Your task to perform on an android device: Do I have any events today? Image 0: 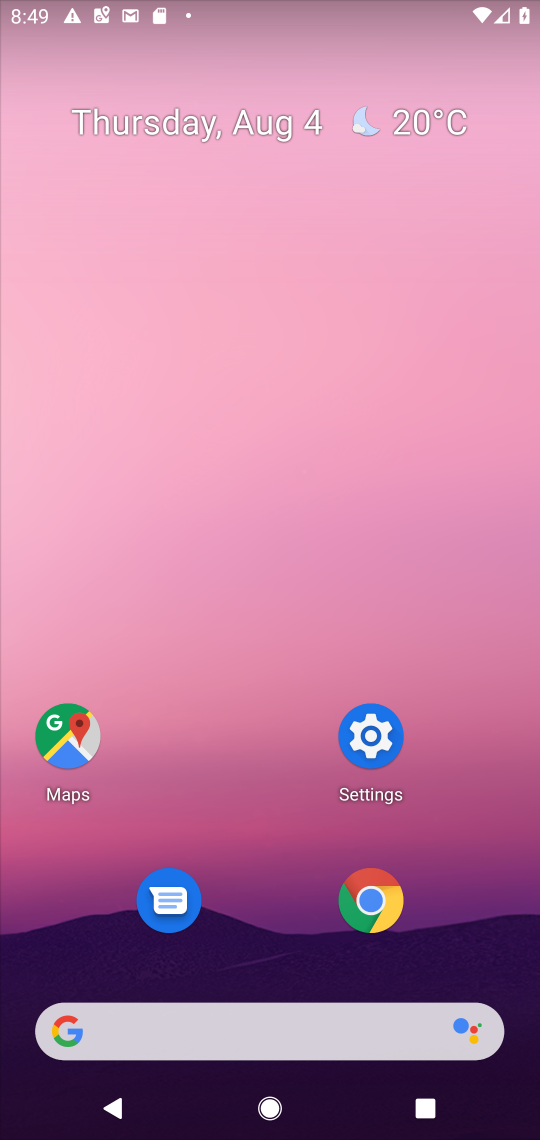
Step 0: drag from (165, 1029) to (382, 177)
Your task to perform on an android device: Do I have any events today? Image 1: 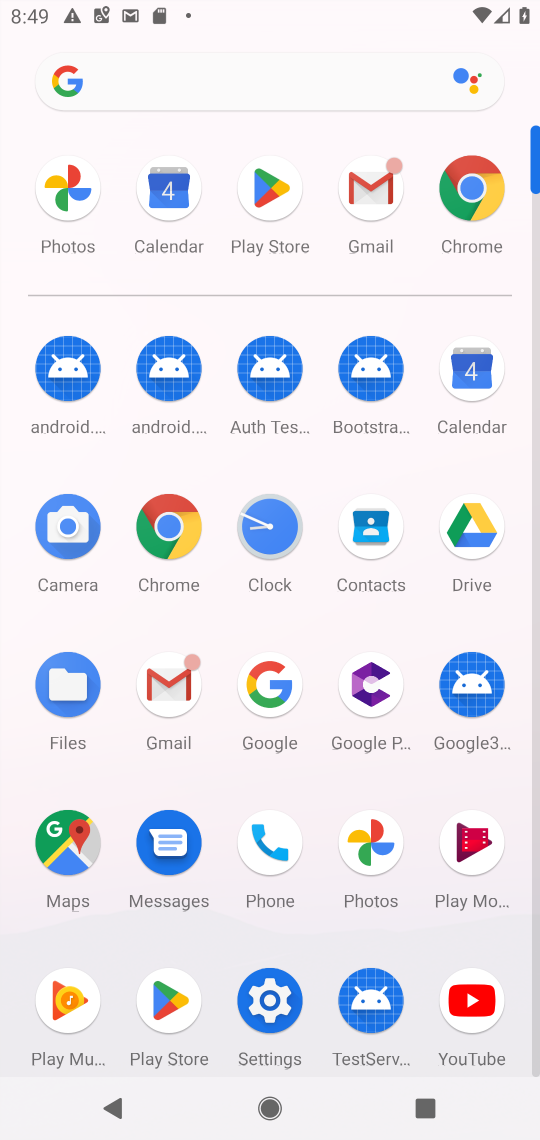
Step 1: click (481, 379)
Your task to perform on an android device: Do I have any events today? Image 2: 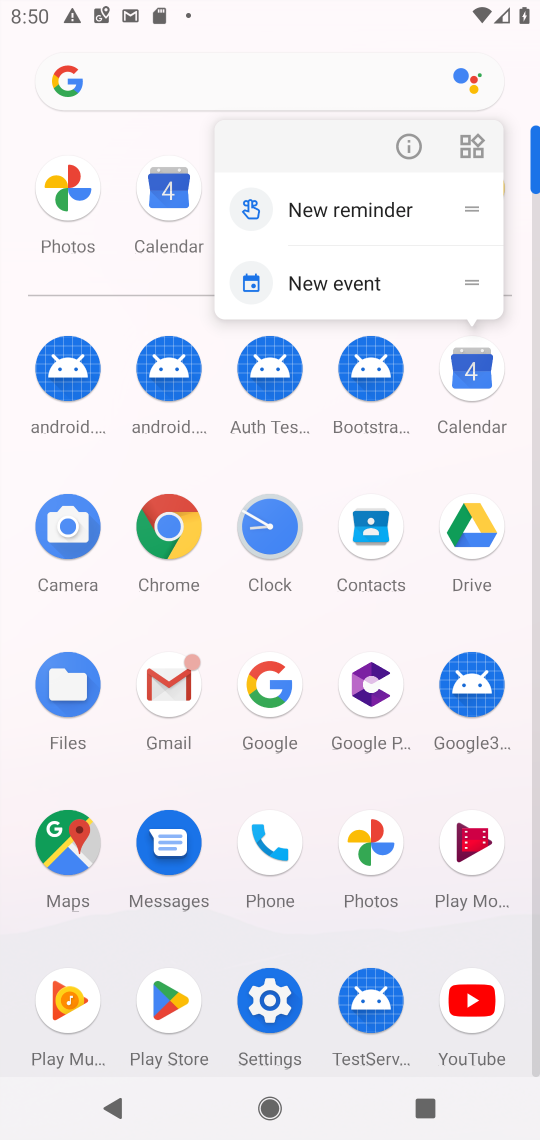
Step 2: click (481, 377)
Your task to perform on an android device: Do I have any events today? Image 3: 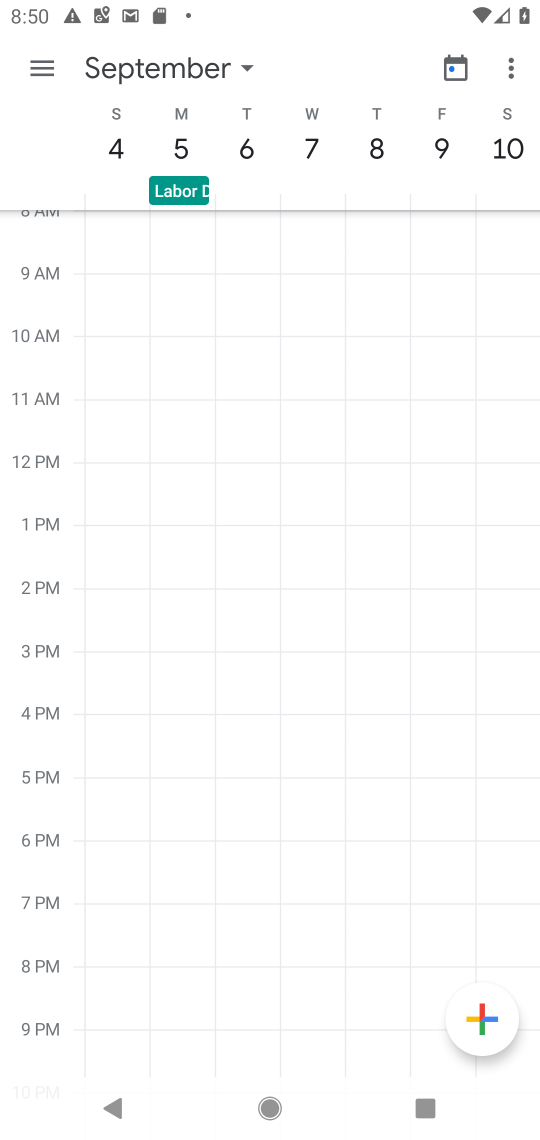
Step 3: click (171, 60)
Your task to perform on an android device: Do I have any events today? Image 4: 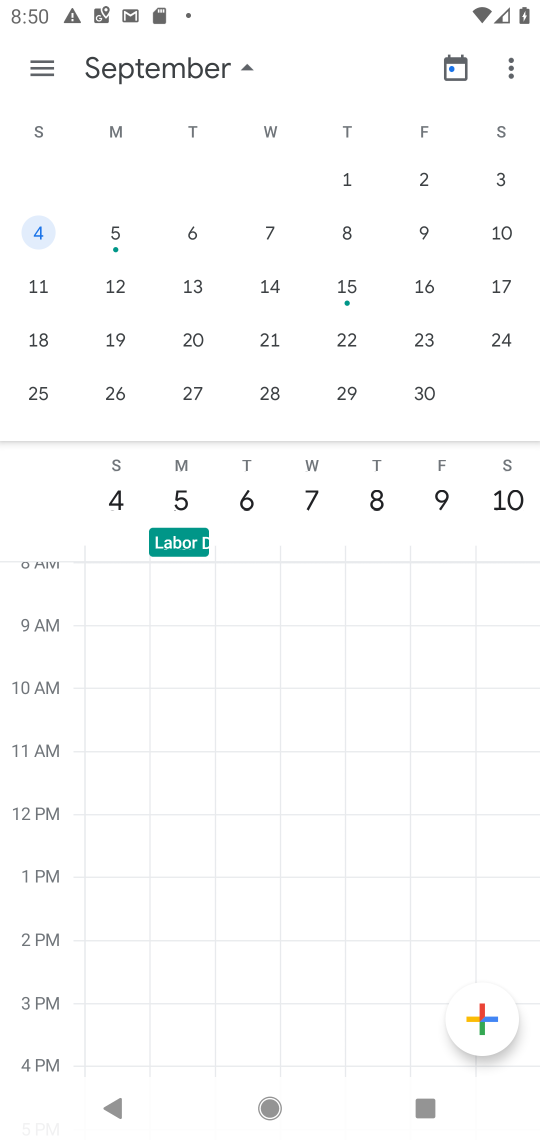
Step 4: drag from (102, 333) to (536, 338)
Your task to perform on an android device: Do I have any events today? Image 5: 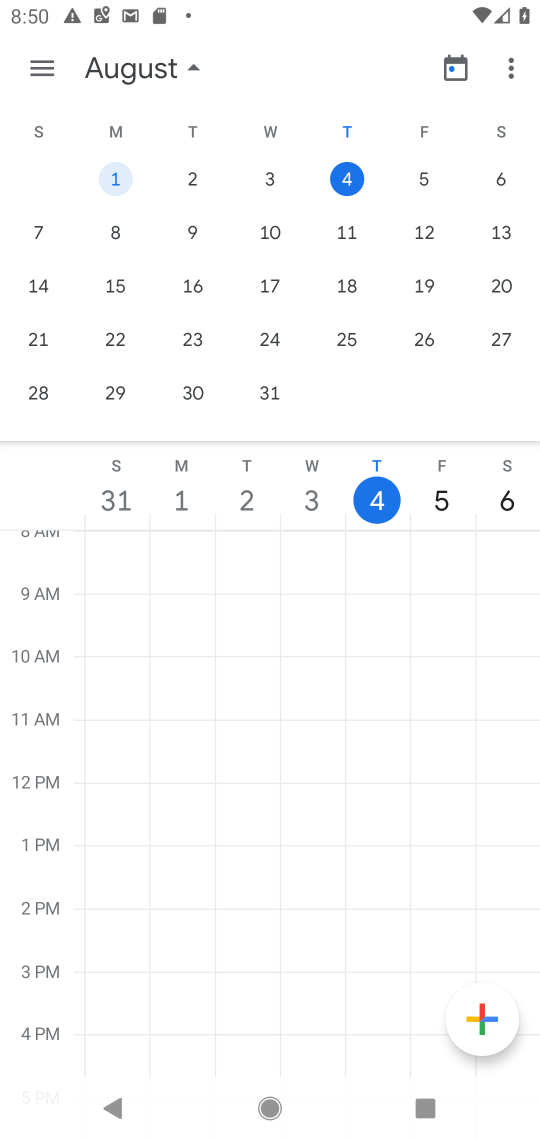
Step 5: click (426, 175)
Your task to perform on an android device: Do I have any events today? Image 6: 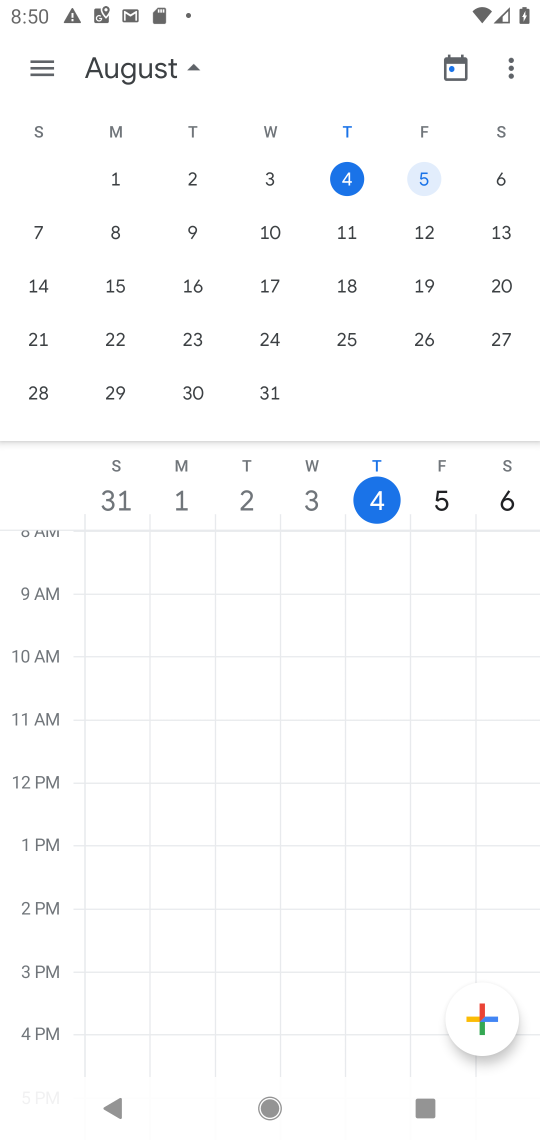
Step 6: click (344, 180)
Your task to perform on an android device: Do I have any events today? Image 7: 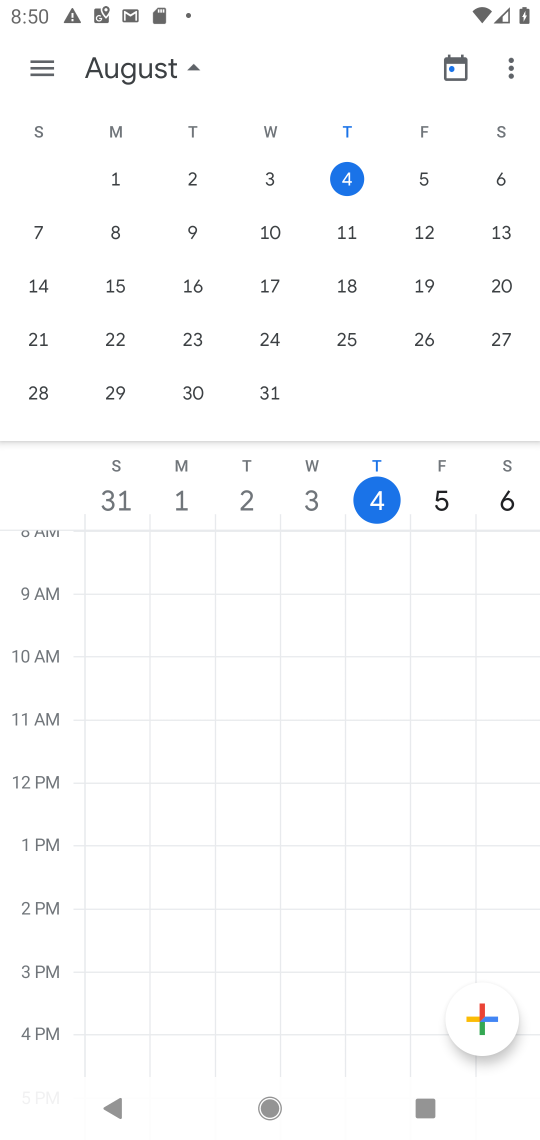
Step 7: click (41, 63)
Your task to perform on an android device: Do I have any events today? Image 8: 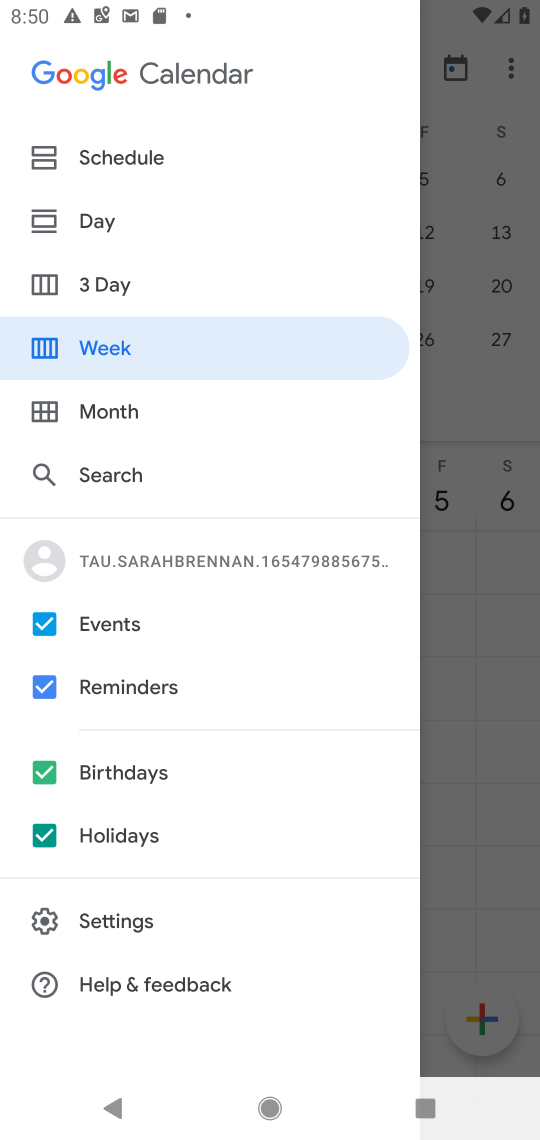
Step 8: click (95, 219)
Your task to perform on an android device: Do I have any events today? Image 9: 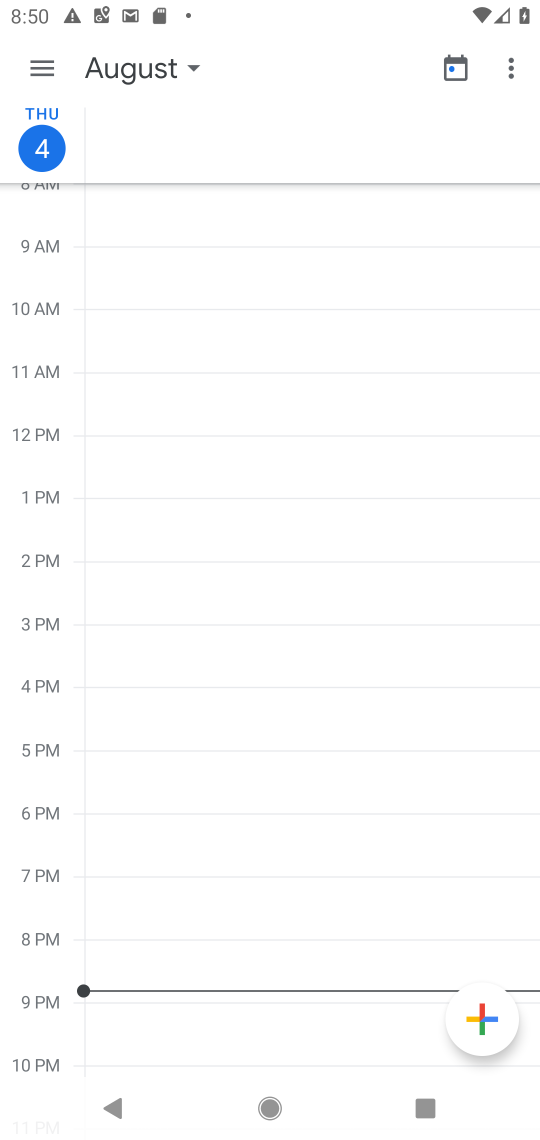
Step 9: click (39, 68)
Your task to perform on an android device: Do I have any events today? Image 10: 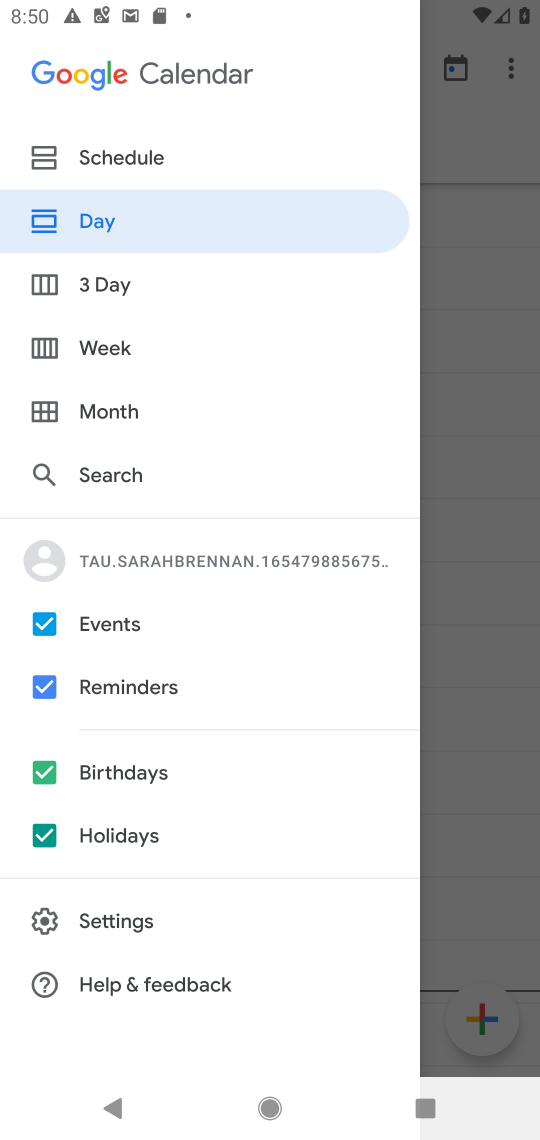
Step 10: click (98, 169)
Your task to perform on an android device: Do I have any events today? Image 11: 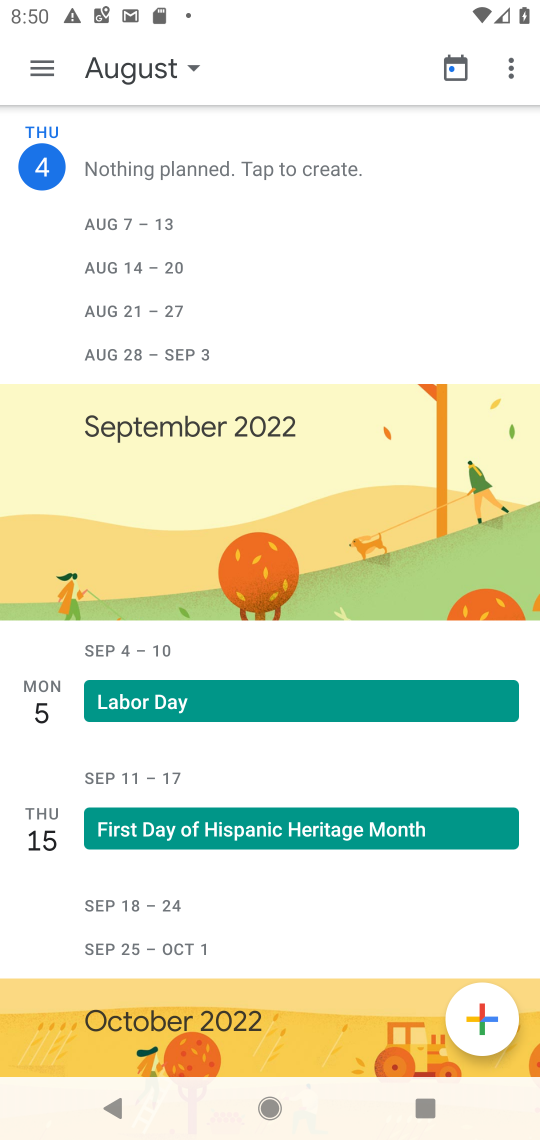
Step 11: task complete